Your task to perform on an android device: When is my next appointment? Image 0: 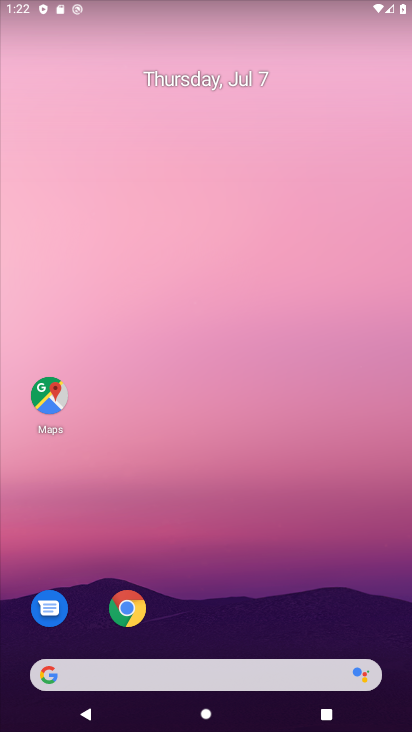
Step 0: drag from (294, 656) to (305, 87)
Your task to perform on an android device: When is my next appointment? Image 1: 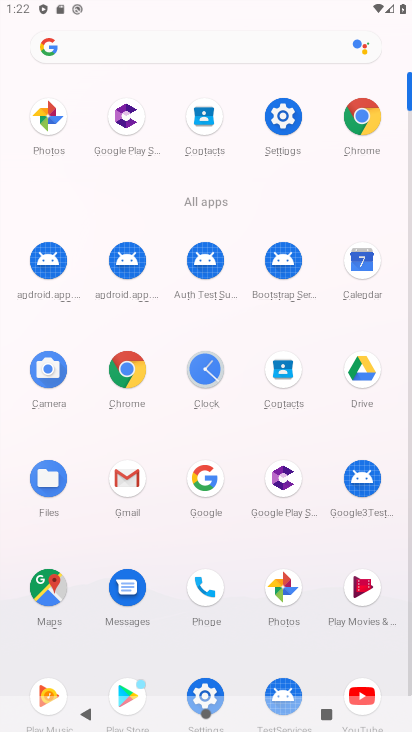
Step 1: click (366, 271)
Your task to perform on an android device: When is my next appointment? Image 2: 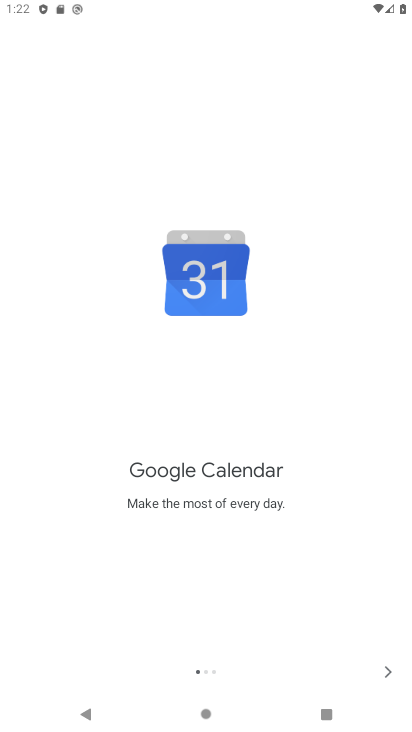
Step 2: click (389, 667)
Your task to perform on an android device: When is my next appointment? Image 3: 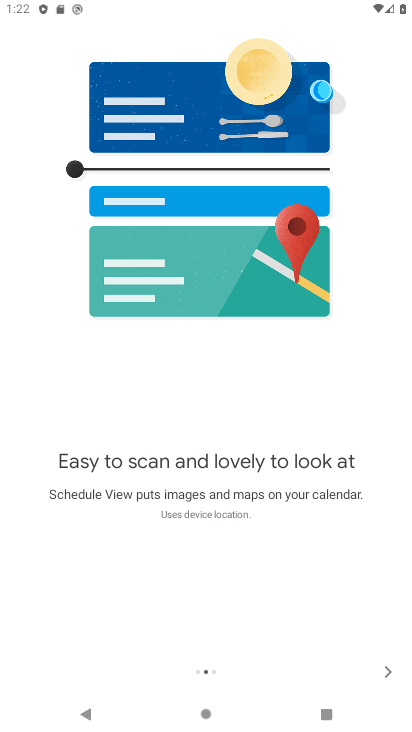
Step 3: click (389, 667)
Your task to perform on an android device: When is my next appointment? Image 4: 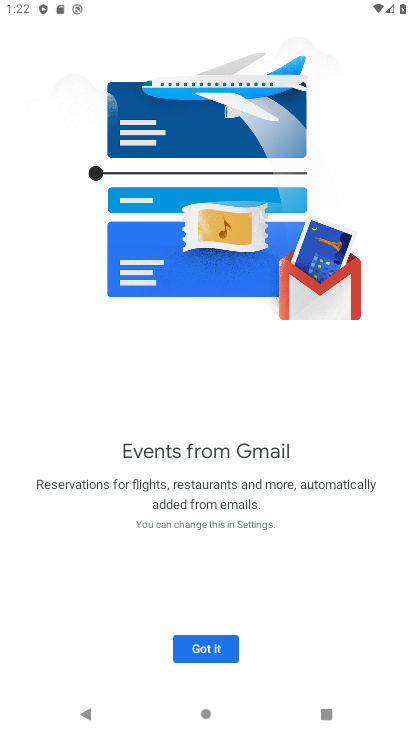
Step 4: click (216, 651)
Your task to perform on an android device: When is my next appointment? Image 5: 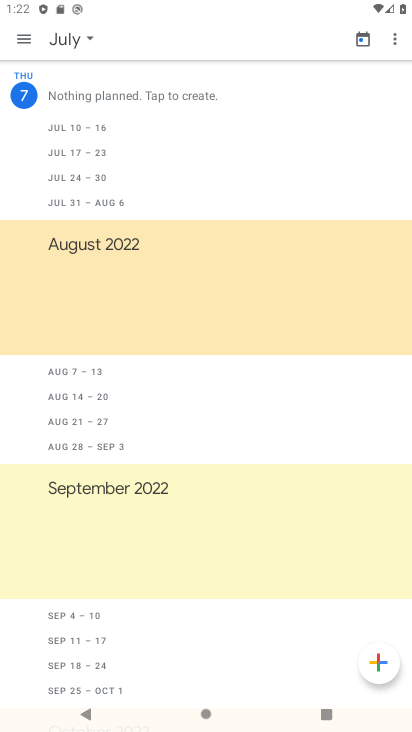
Step 5: click (80, 39)
Your task to perform on an android device: When is my next appointment? Image 6: 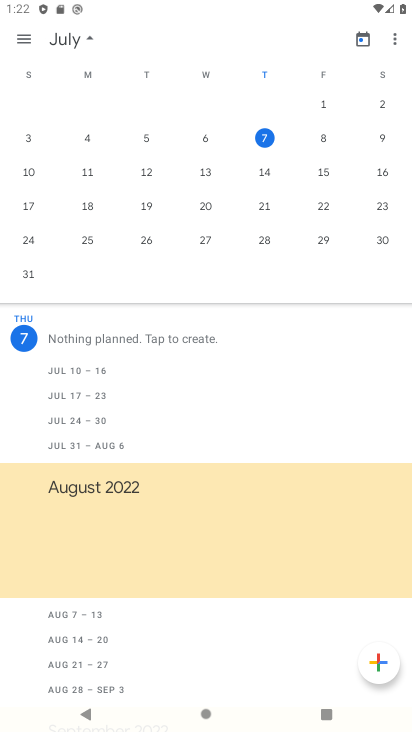
Step 6: click (314, 132)
Your task to perform on an android device: When is my next appointment? Image 7: 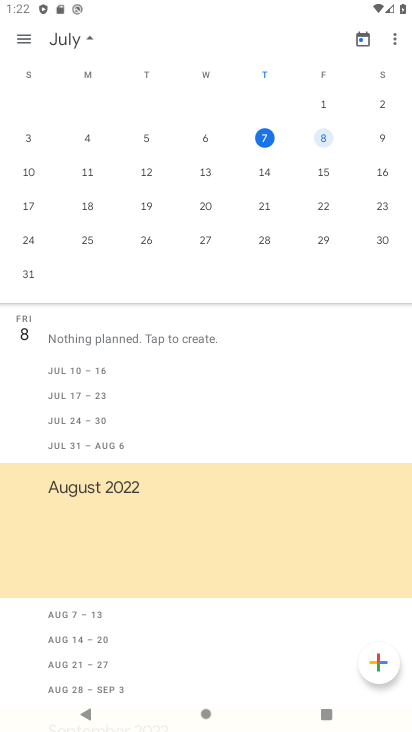
Step 7: task complete